Your task to perform on an android device: turn on location history Image 0: 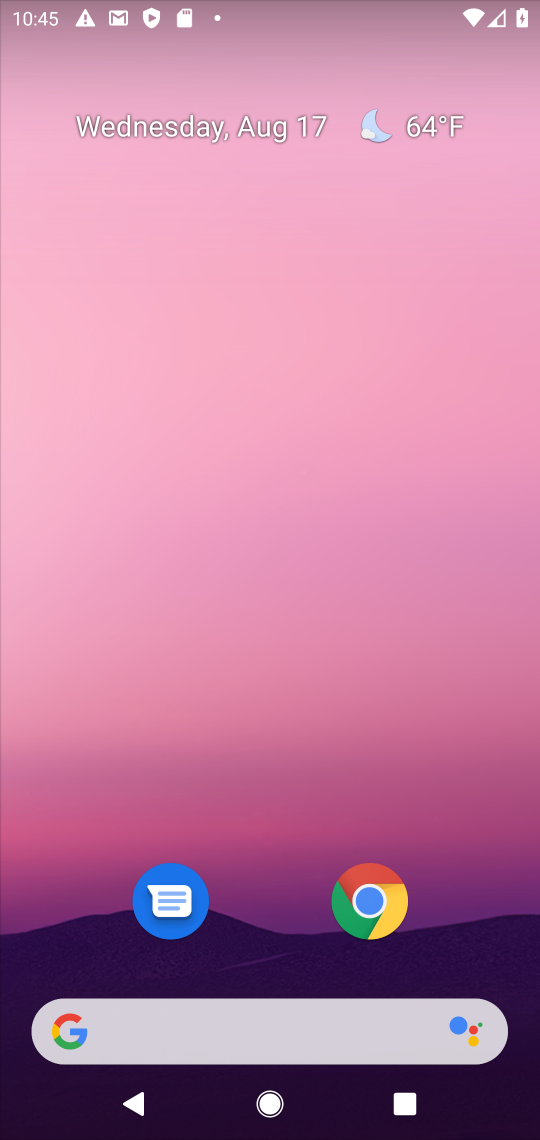
Step 0: drag from (277, 963) to (319, 152)
Your task to perform on an android device: turn on location history Image 1: 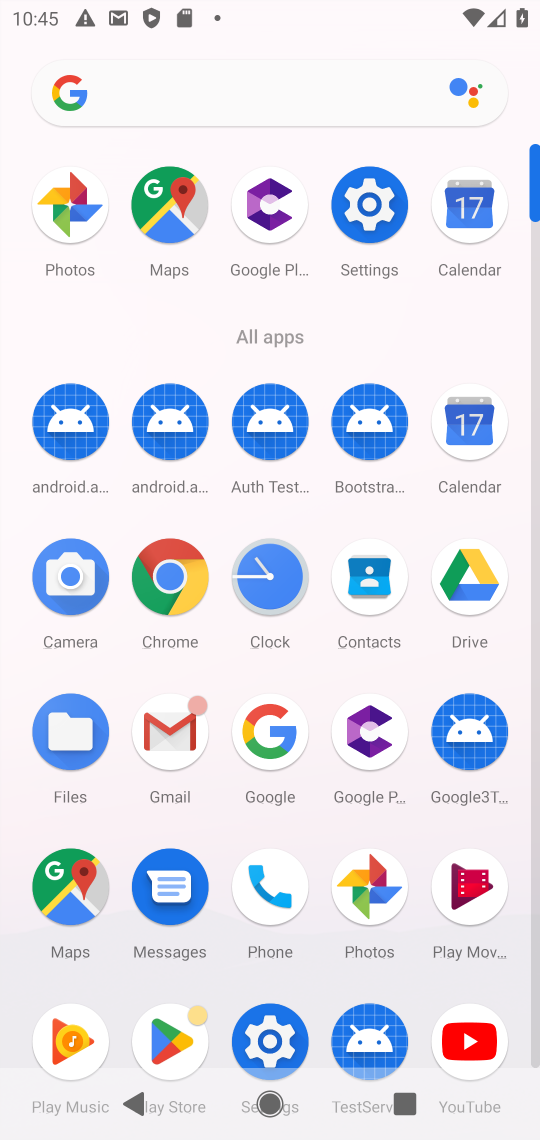
Step 1: click (352, 214)
Your task to perform on an android device: turn on location history Image 2: 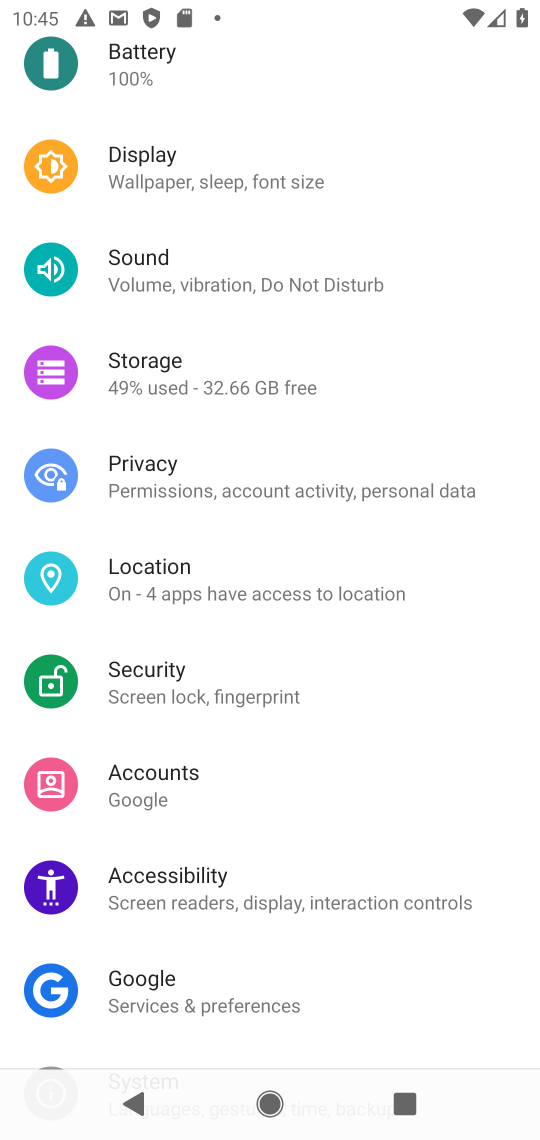
Step 2: click (136, 585)
Your task to perform on an android device: turn on location history Image 3: 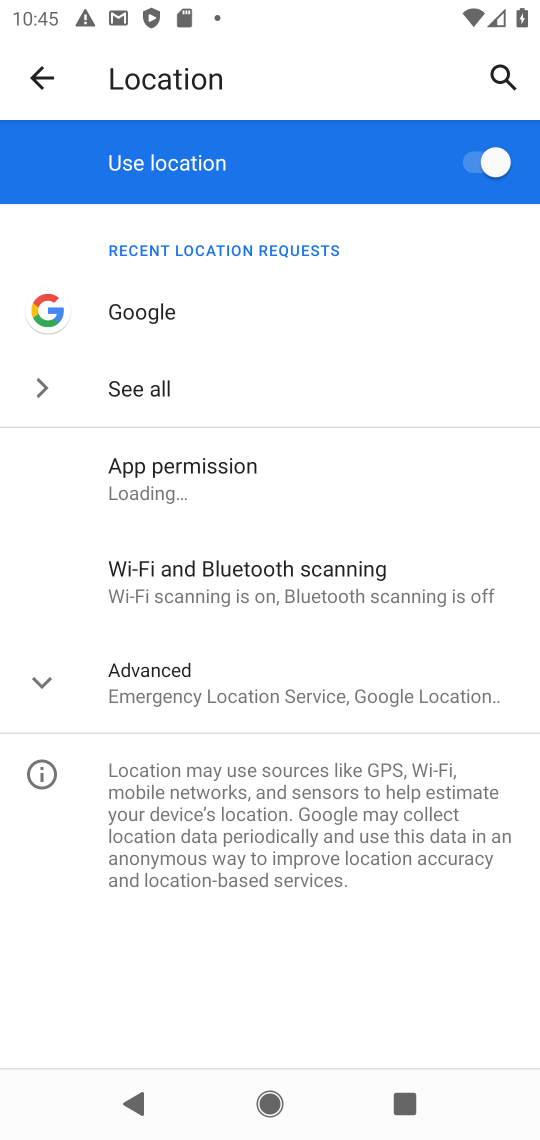
Step 3: click (123, 676)
Your task to perform on an android device: turn on location history Image 4: 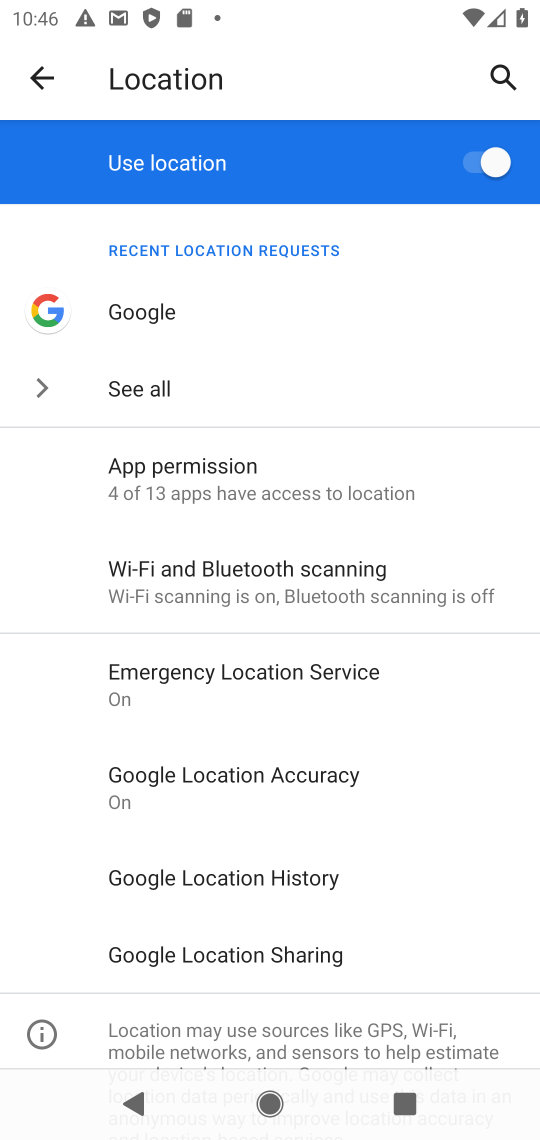
Step 4: click (269, 876)
Your task to perform on an android device: turn on location history Image 5: 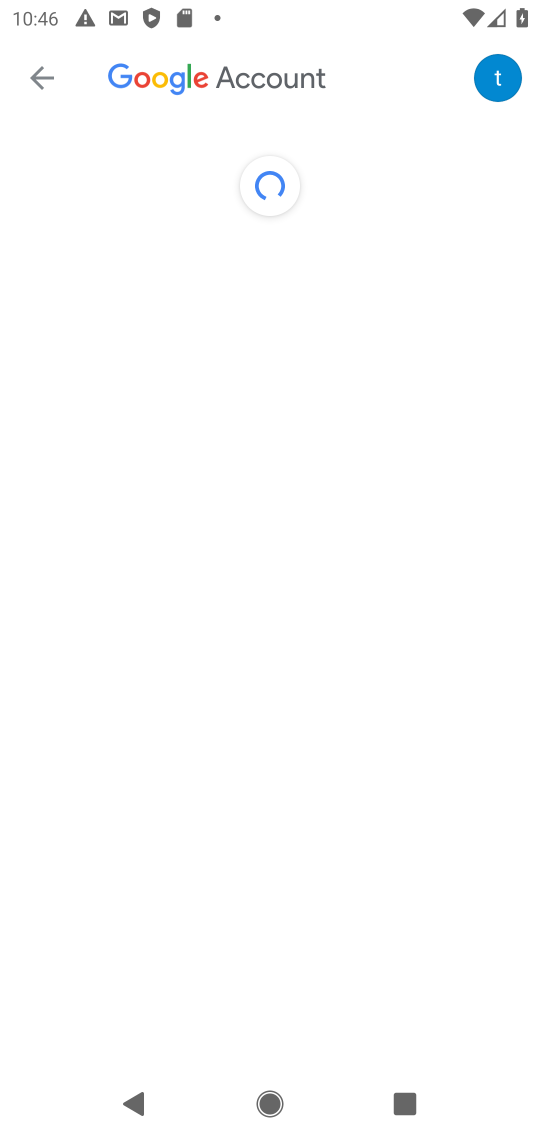
Step 5: task complete